Your task to perform on an android device: check the backup settings in the google photos Image 0: 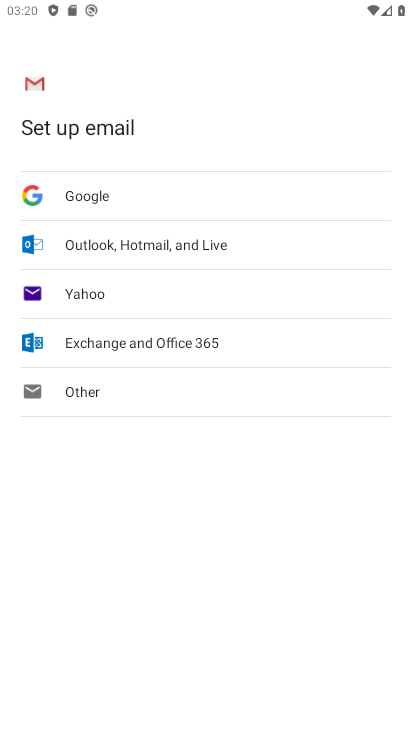
Step 0: press home button
Your task to perform on an android device: check the backup settings in the google photos Image 1: 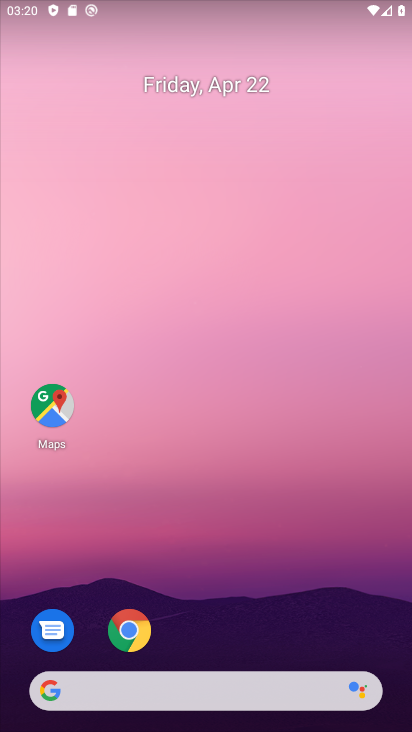
Step 1: drag from (216, 467) to (262, 142)
Your task to perform on an android device: check the backup settings in the google photos Image 2: 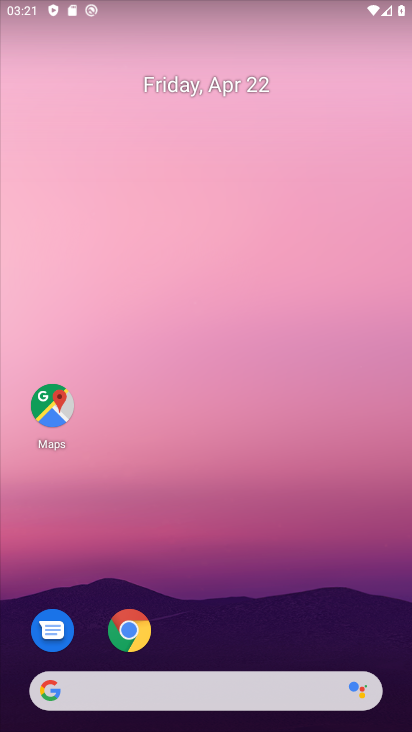
Step 2: drag from (192, 604) to (298, 121)
Your task to perform on an android device: check the backup settings in the google photos Image 3: 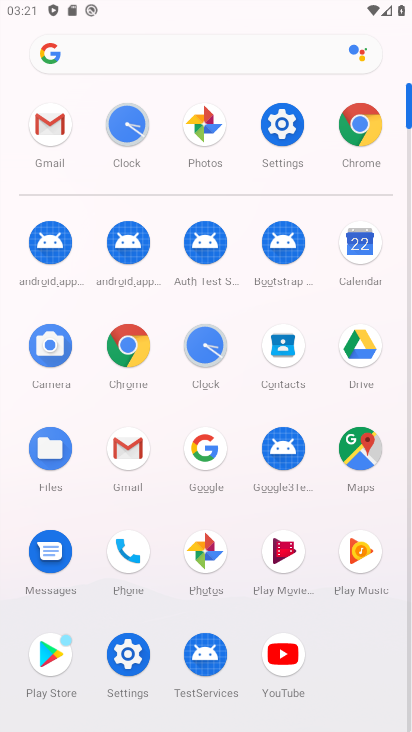
Step 3: click (197, 568)
Your task to perform on an android device: check the backup settings in the google photos Image 4: 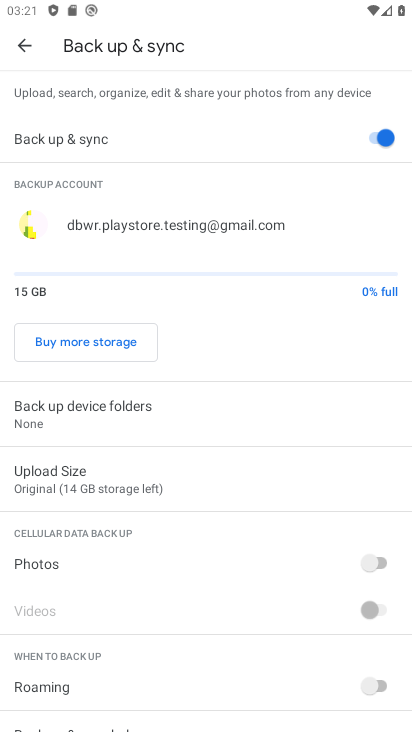
Step 4: task complete